Your task to perform on an android device: turn off data saver in the chrome app Image 0: 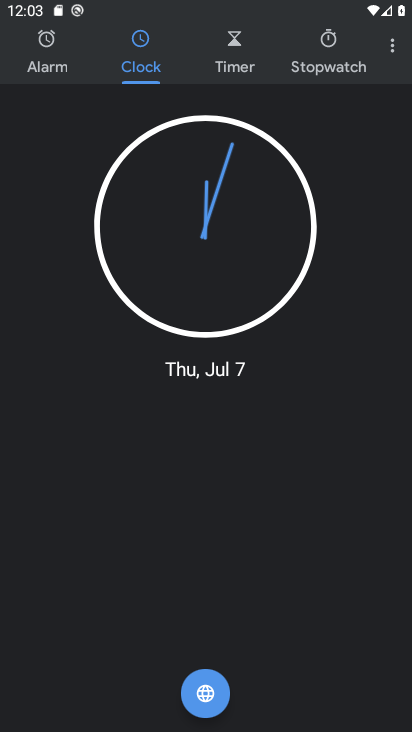
Step 0: press home button
Your task to perform on an android device: turn off data saver in the chrome app Image 1: 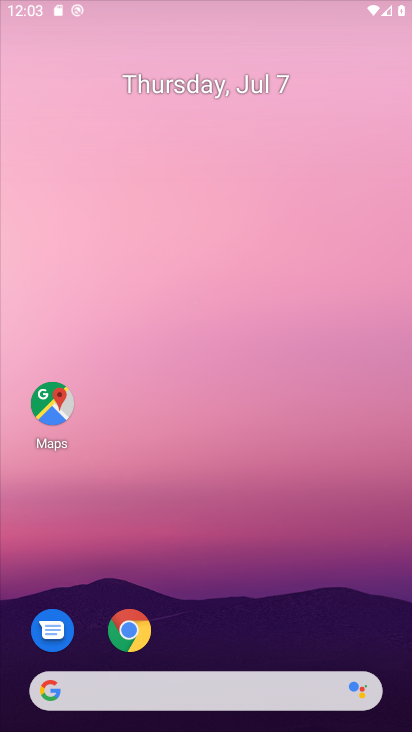
Step 1: drag from (272, 574) to (274, 237)
Your task to perform on an android device: turn off data saver in the chrome app Image 2: 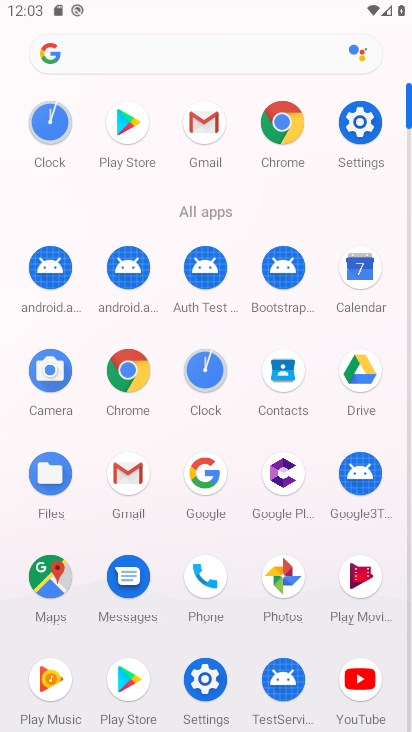
Step 2: click (274, 122)
Your task to perform on an android device: turn off data saver in the chrome app Image 3: 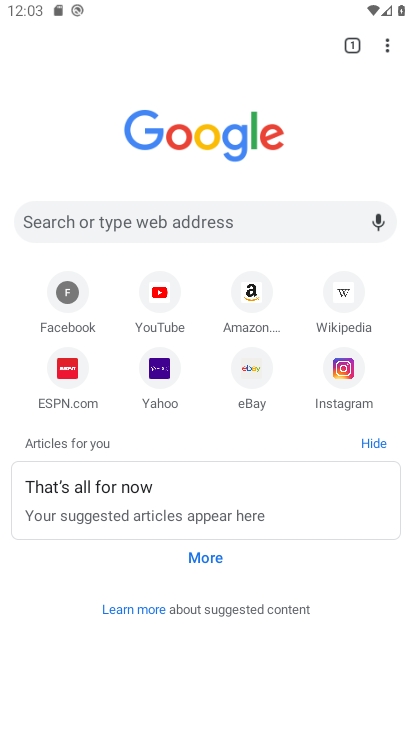
Step 3: click (384, 41)
Your task to perform on an android device: turn off data saver in the chrome app Image 4: 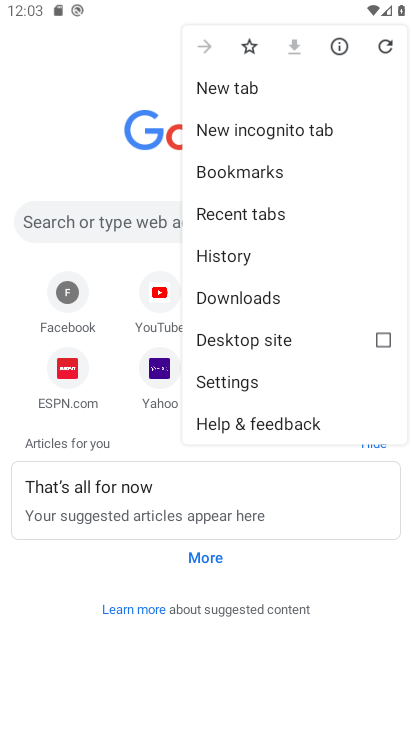
Step 4: click (273, 369)
Your task to perform on an android device: turn off data saver in the chrome app Image 5: 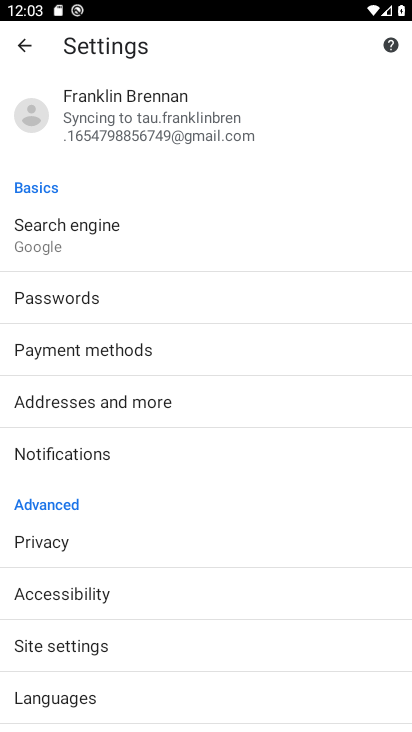
Step 5: drag from (142, 663) to (200, 281)
Your task to perform on an android device: turn off data saver in the chrome app Image 6: 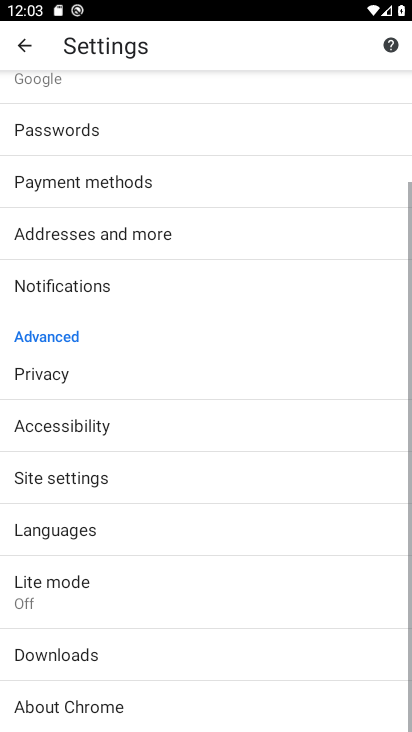
Step 6: click (102, 578)
Your task to perform on an android device: turn off data saver in the chrome app Image 7: 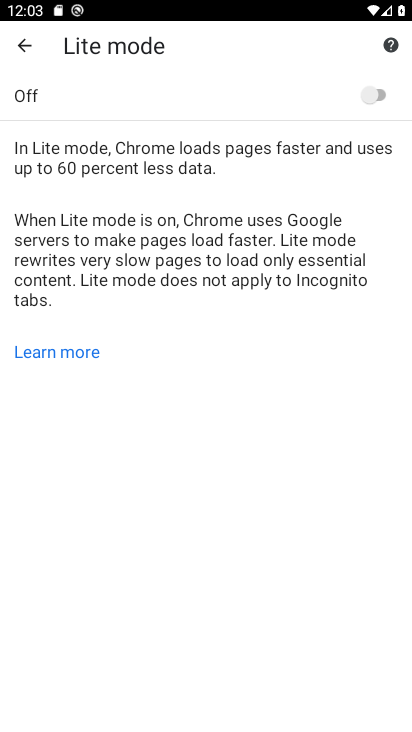
Step 7: task complete